Your task to perform on an android device: Open Google Maps and go to "Timeline" Image 0: 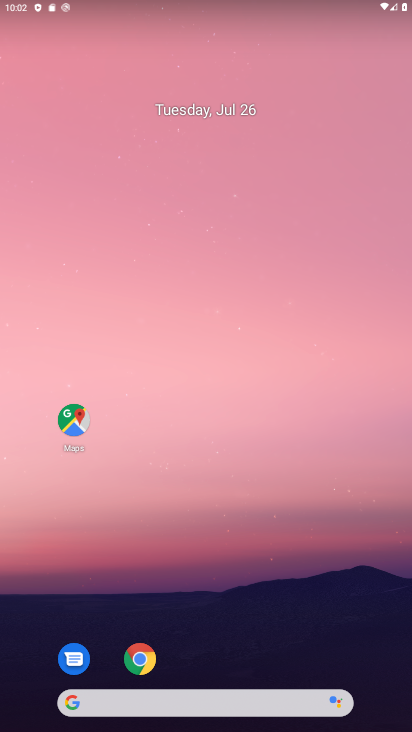
Step 0: press home button
Your task to perform on an android device: Open Google Maps and go to "Timeline" Image 1: 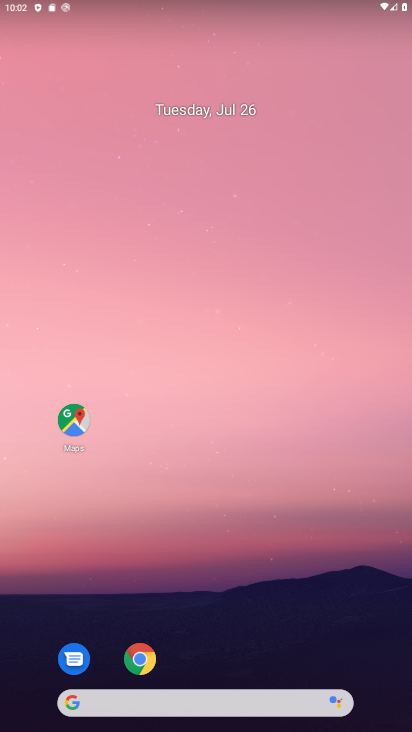
Step 1: click (74, 355)
Your task to perform on an android device: Open Google Maps and go to "Timeline" Image 2: 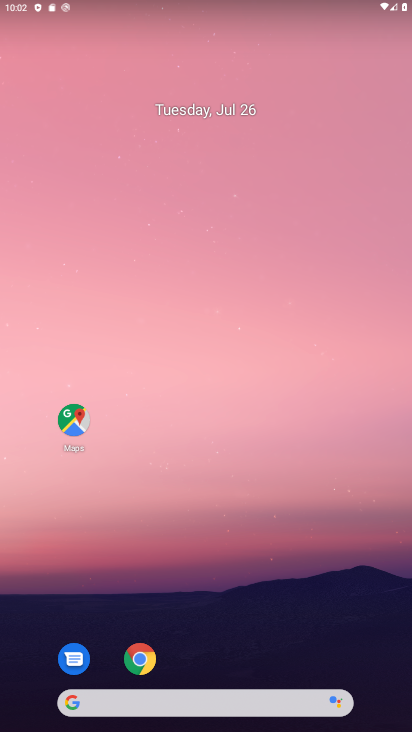
Step 2: click (71, 423)
Your task to perform on an android device: Open Google Maps and go to "Timeline" Image 3: 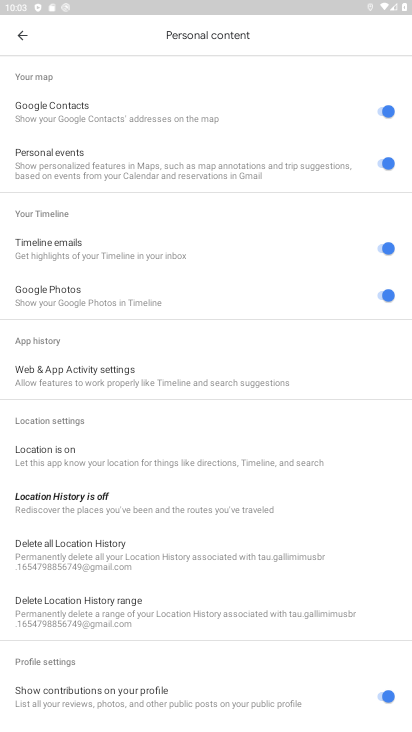
Step 3: click (19, 29)
Your task to perform on an android device: Open Google Maps and go to "Timeline" Image 4: 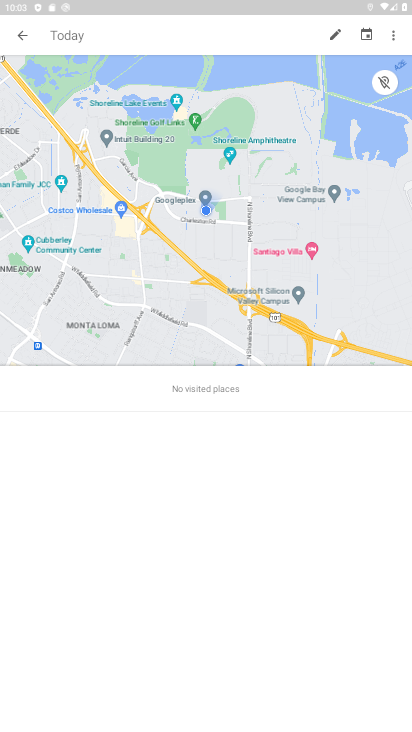
Step 4: task complete